Your task to perform on an android device: Go to display settings Image 0: 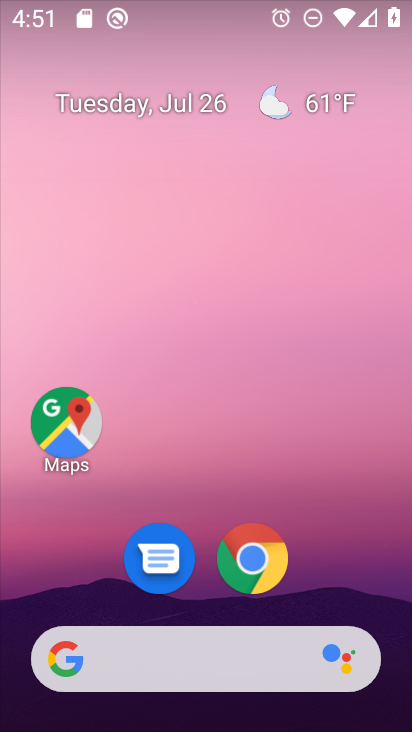
Step 0: drag from (87, 581) to (207, 30)
Your task to perform on an android device: Go to display settings Image 1: 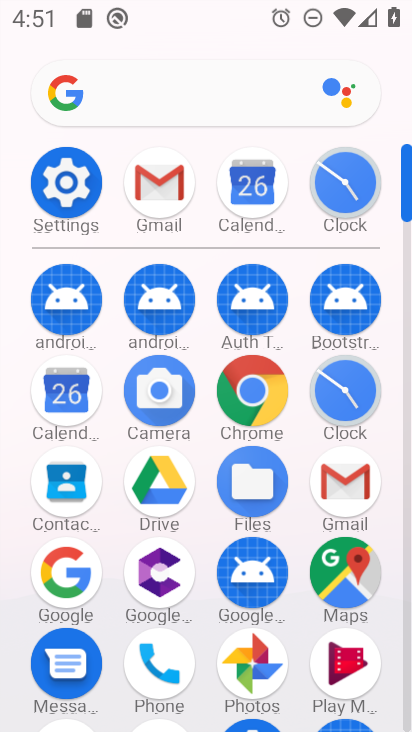
Step 1: click (64, 176)
Your task to perform on an android device: Go to display settings Image 2: 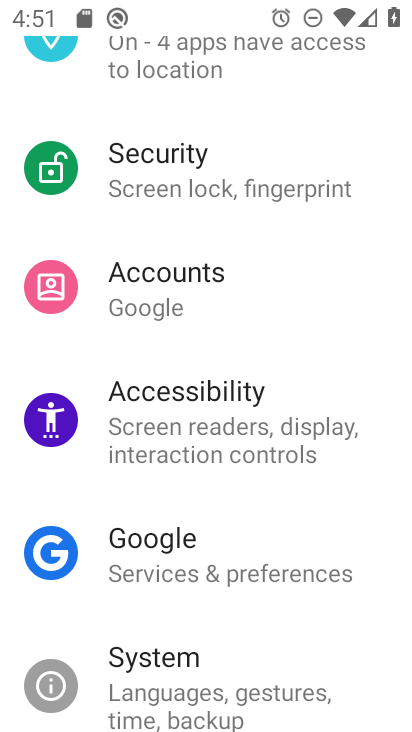
Step 2: drag from (252, 196) to (178, 676)
Your task to perform on an android device: Go to display settings Image 3: 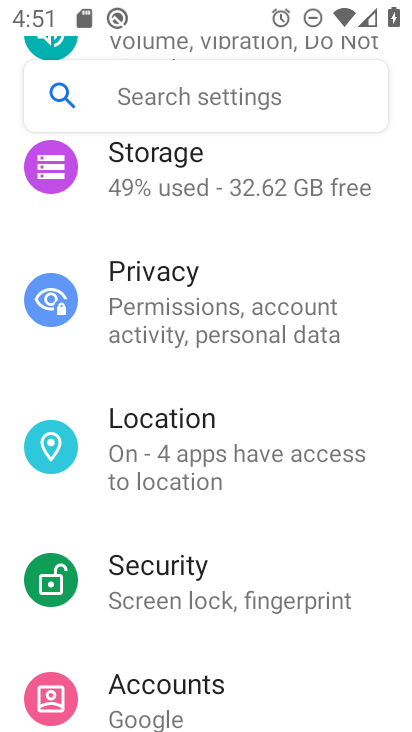
Step 3: drag from (183, 179) to (227, 689)
Your task to perform on an android device: Go to display settings Image 4: 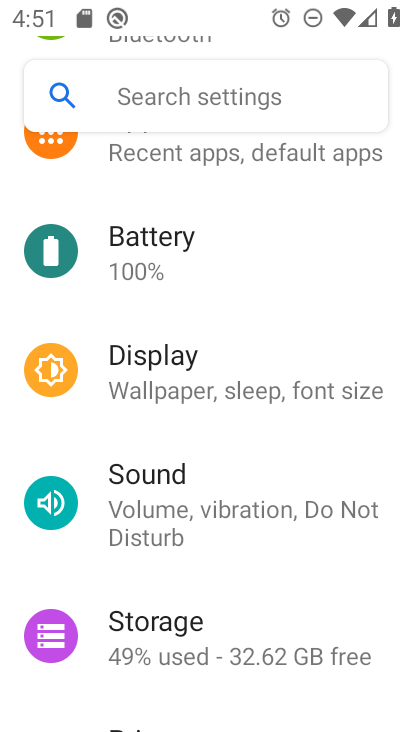
Step 4: click (248, 374)
Your task to perform on an android device: Go to display settings Image 5: 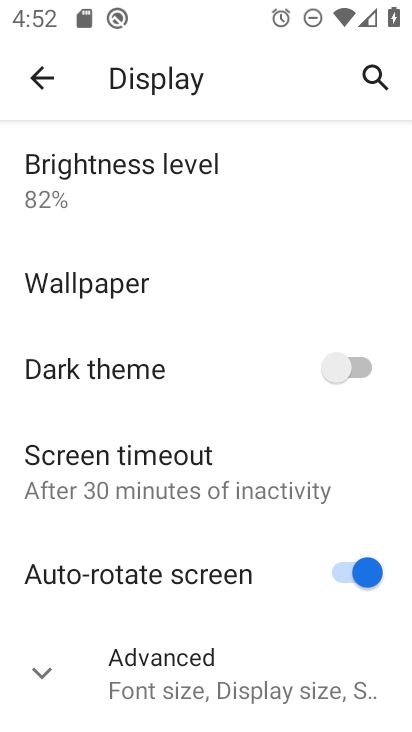
Step 5: task complete